Your task to perform on an android device: remove spam from my inbox in the gmail app Image 0: 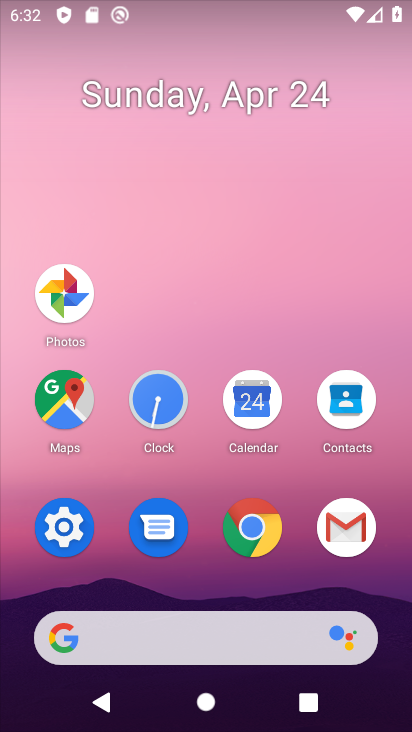
Step 0: click (344, 531)
Your task to perform on an android device: remove spam from my inbox in the gmail app Image 1: 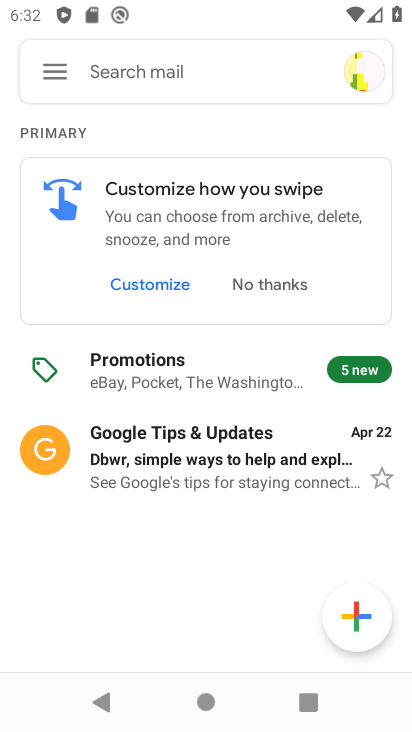
Step 1: click (54, 68)
Your task to perform on an android device: remove spam from my inbox in the gmail app Image 2: 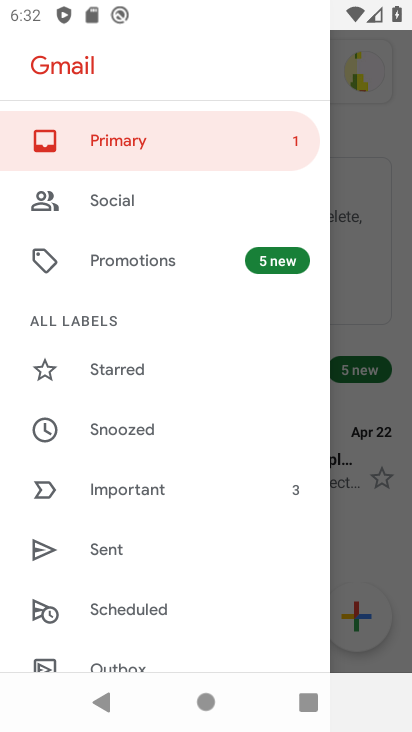
Step 2: drag from (152, 567) to (164, 294)
Your task to perform on an android device: remove spam from my inbox in the gmail app Image 3: 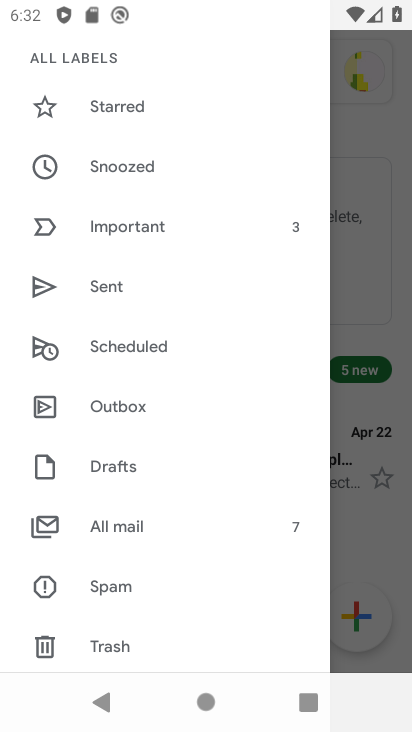
Step 3: click (115, 588)
Your task to perform on an android device: remove spam from my inbox in the gmail app Image 4: 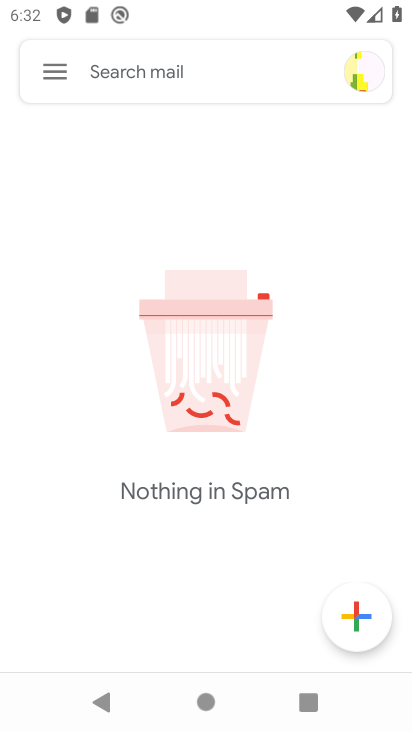
Step 4: task complete